Your task to perform on an android device: see sites visited before in the chrome app Image 0: 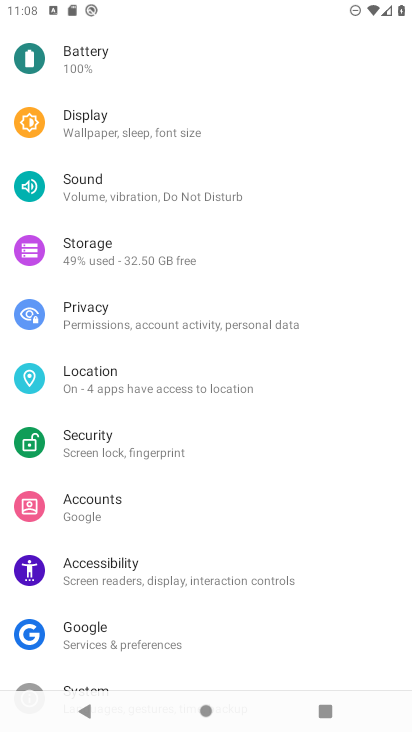
Step 0: press home button
Your task to perform on an android device: see sites visited before in the chrome app Image 1: 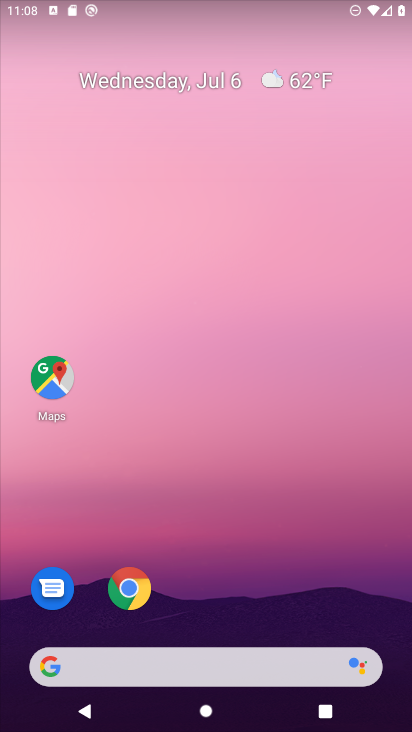
Step 1: click (130, 591)
Your task to perform on an android device: see sites visited before in the chrome app Image 2: 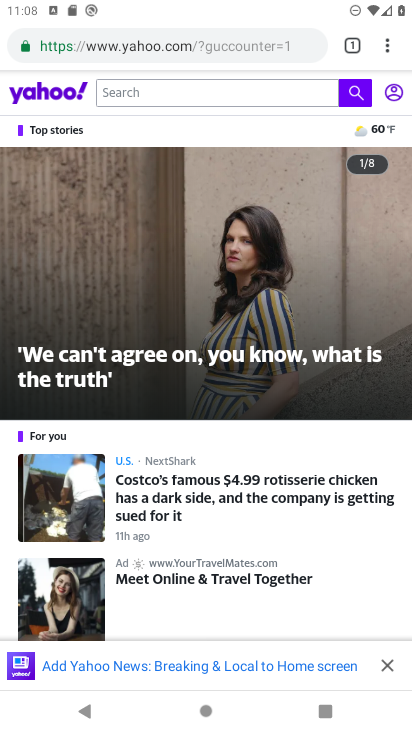
Step 2: click (386, 50)
Your task to perform on an android device: see sites visited before in the chrome app Image 3: 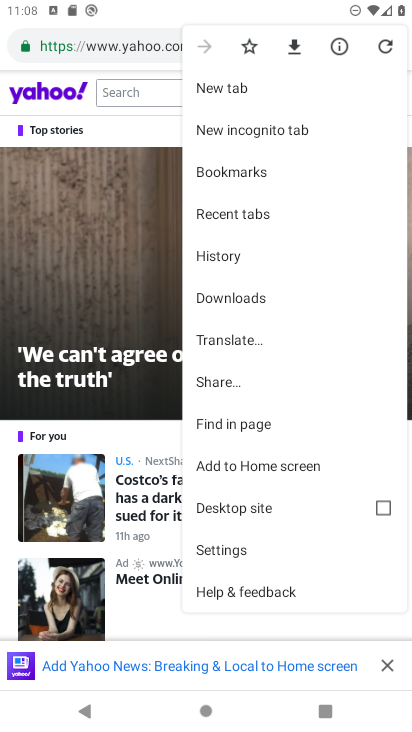
Step 3: click (219, 258)
Your task to perform on an android device: see sites visited before in the chrome app Image 4: 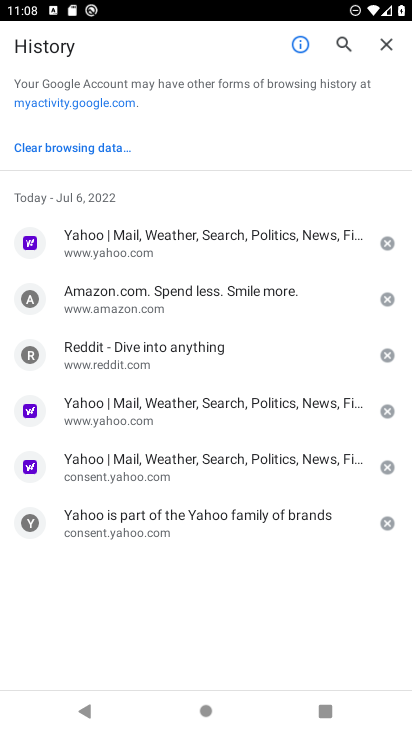
Step 4: task complete